Your task to perform on an android device: Search for sushi restaurants on Maps Image 0: 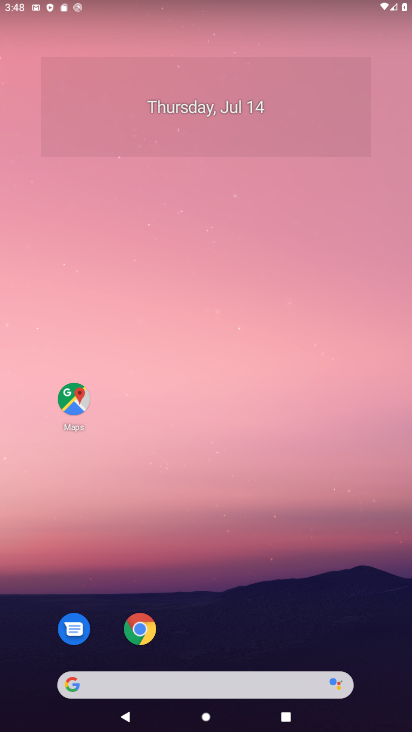
Step 0: click (65, 376)
Your task to perform on an android device: Search for sushi restaurants on Maps Image 1: 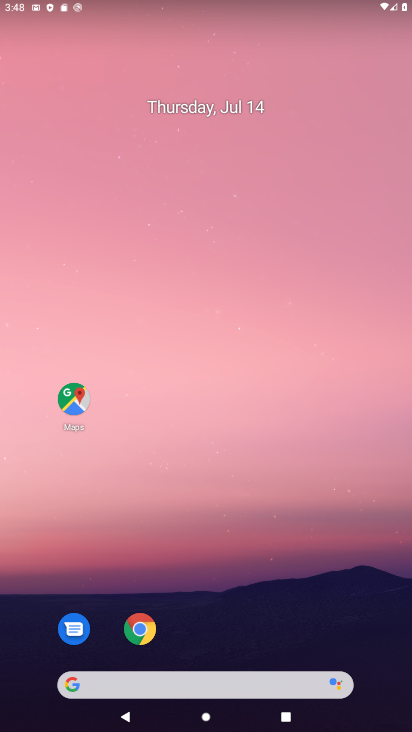
Step 1: click (71, 392)
Your task to perform on an android device: Search for sushi restaurants on Maps Image 2: 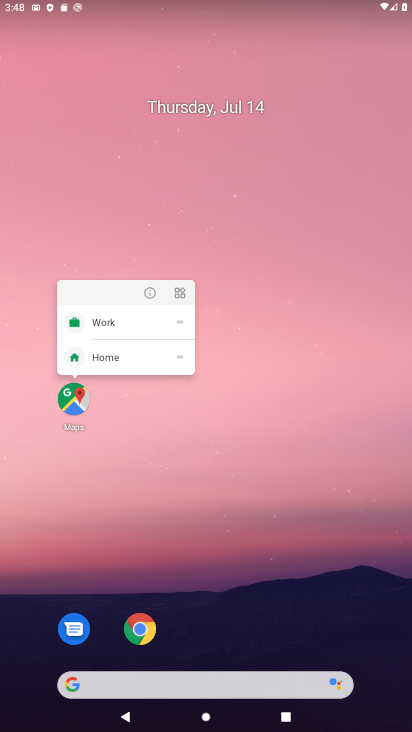
Step 2: click (72, 391)
Your task to perform on an android device: Search for sushi restaurants on Maps Image 3: 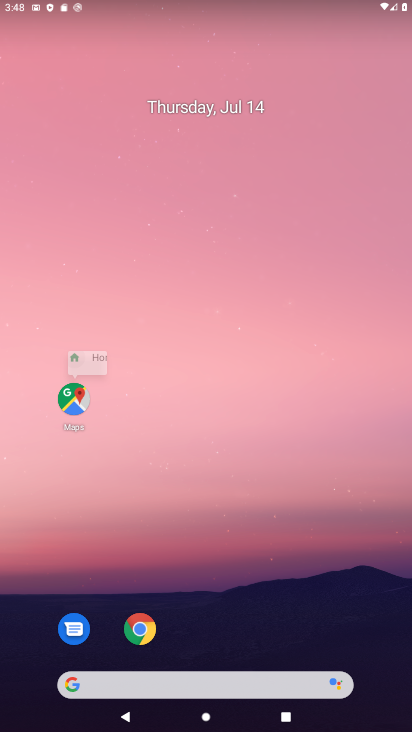
Step 3: click (72, 391)
Your task to perform on an android device: Search for sushi restaurants on Maps Image 4: 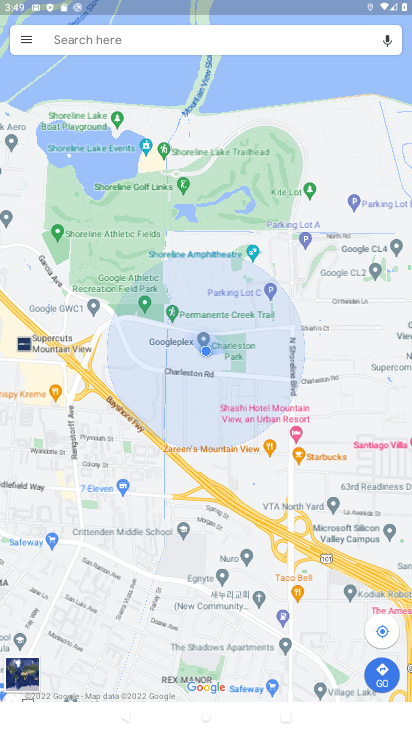
Step 4: click (76, 46)
Your task to perform on an android device: Search for sushi restaurants on Maps Image 5: 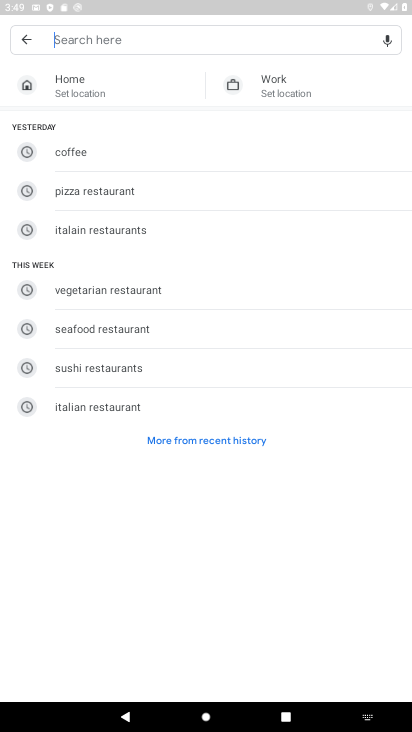
Step 5: click (117, 366)
Your task to perform on an android device: Search for sushi restaurants on Maps Image 6: 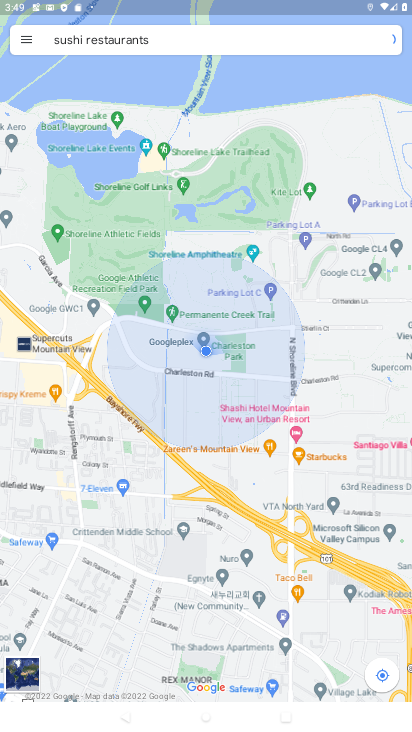
Step 6: click (172, 30)
Your task to perform on an android device: Search for sushi restaurants on Maps Image 7: 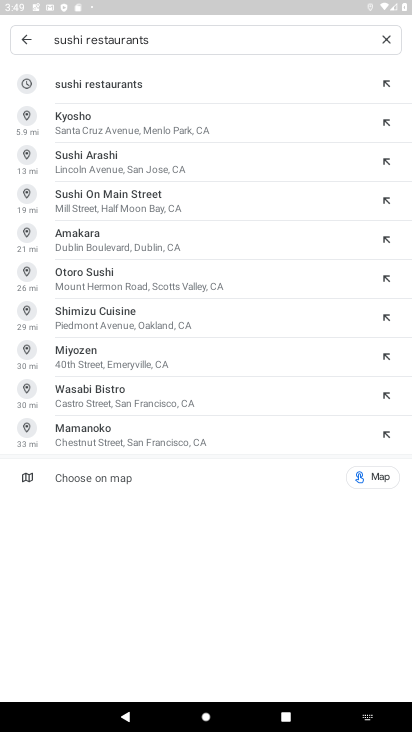
Step 7: task complete